Your task to perform on an android device: Go to settings Image 0: 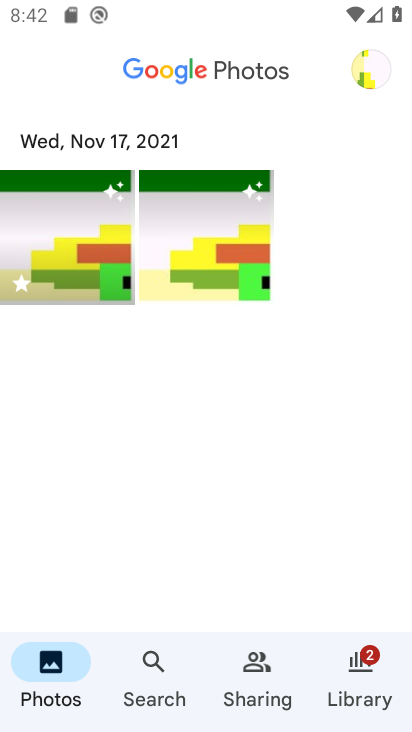
Step 0: press home button
Your task to perform on an android device: Go to settings Image 1: 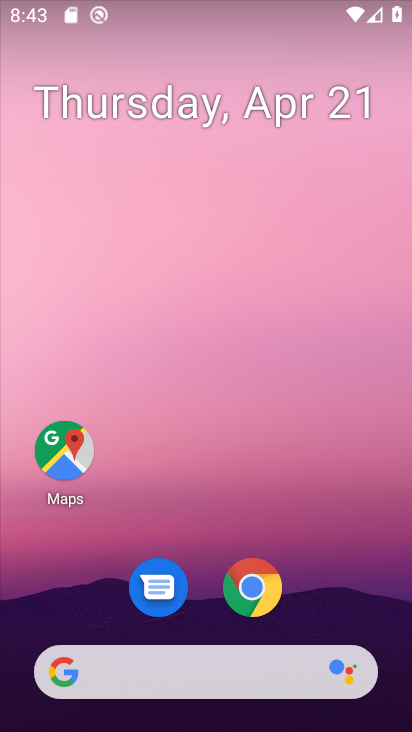
Step 1: drag from (387, 625) to (383, 219)
Your task to perform on an android device: Go to settings Image 2: 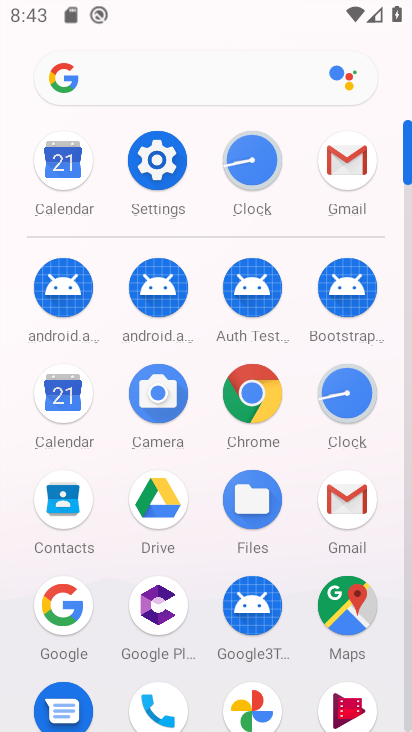
Step 2: click (151, 181)
Your task to perform on an android device: Go to settings Image 3: 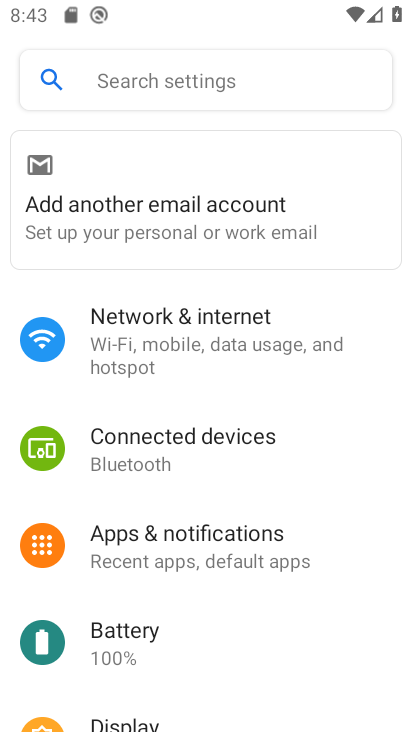
Step 3: click (336, 286)
Your task to perform on an android device: Go to settings Image 4: 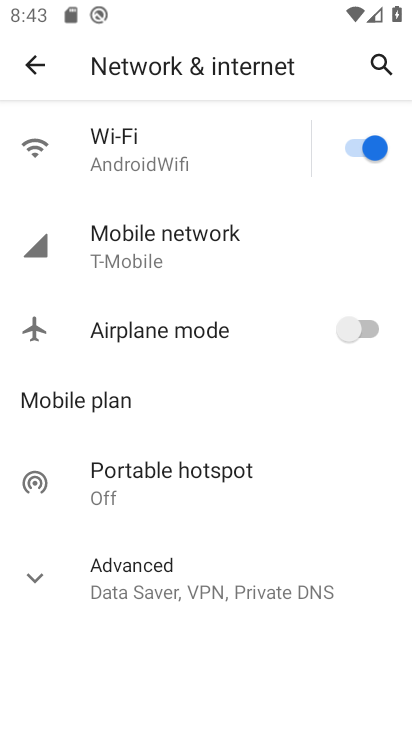
Step 4: drag from (351, 606) to (338, 290)
Your task to perform on an android device: Go to settings Image 5: 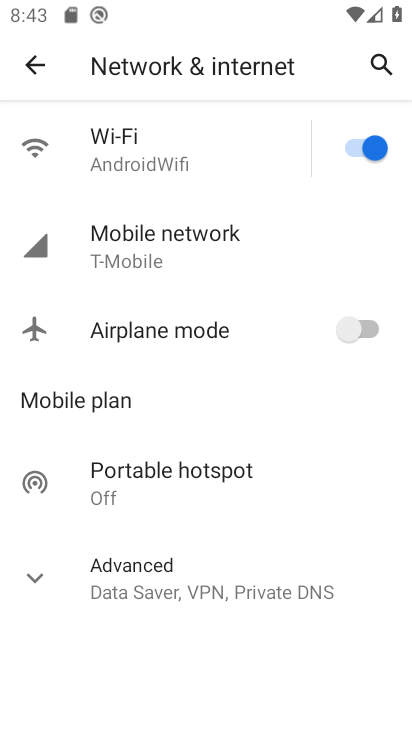
Step 5: click (28, 55)
Your task to perform on an android device: Go to settings Image 6: 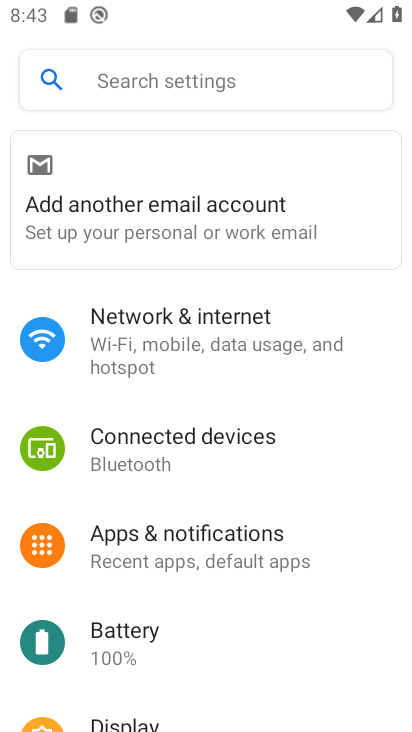
Step 6: task complete